Your task to perform on an android device: Search for sony triple a on costco.com, select the first entry, and add it to the cart. Image 0: 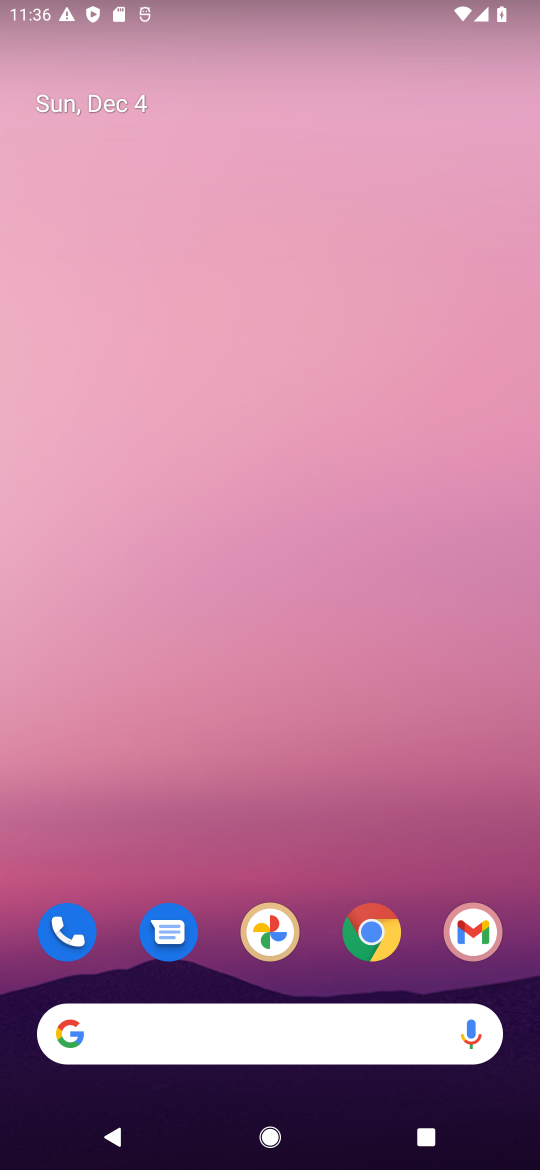
Step 0: click (372, 931)
Your task to perform on an android device: Search for sony triple a on costco.com, select the first entry, and add it to the cart. Image 1: 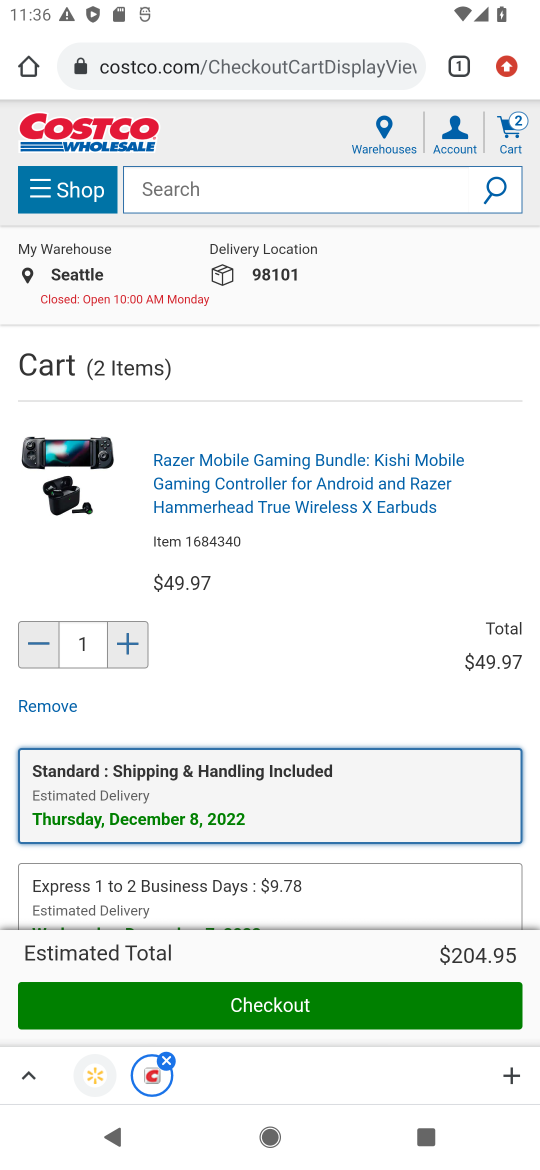
Step 1: click (330, 186)
Your task to perform on an android device: Search for sony triple a on costco.com, select the first entry, and add it to the cart. Image 2: 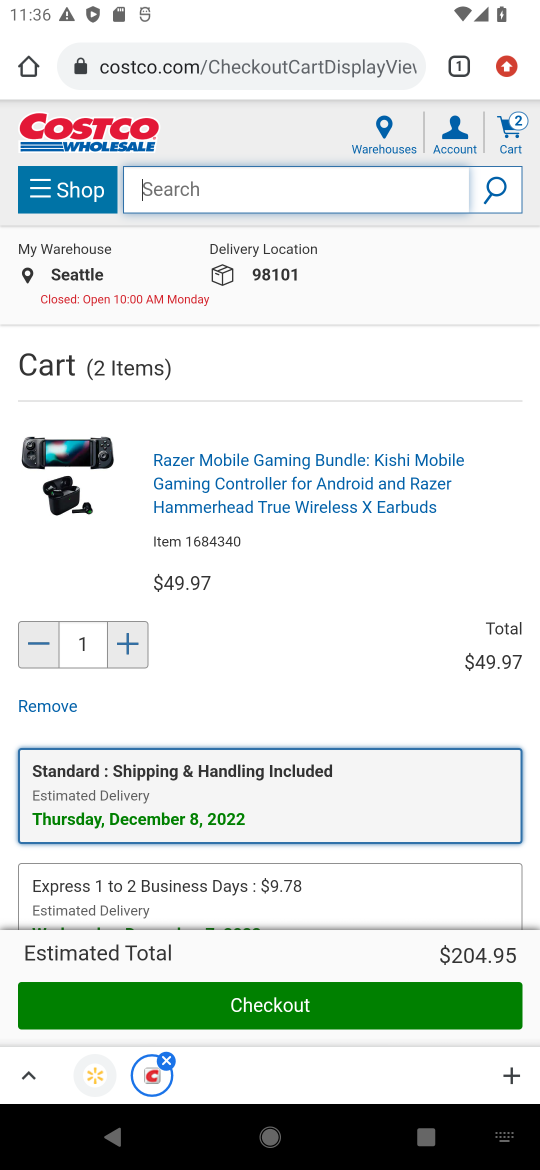
Step 2: type "sony triple a"
Your task to perform on an android device: Search for sony triple a on costco.com, select the first entry, and add it to the cart. Image 3: 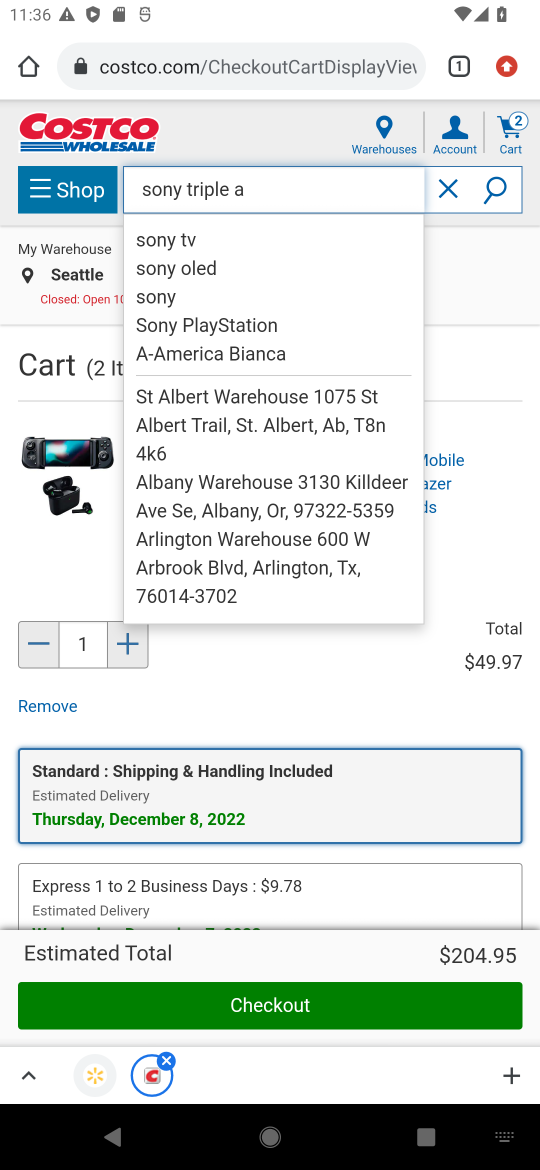
Step 3: click (188, 245)
Your task to perform on an android device: Search for sony triple a on costco.com, select the first entry, and add it to the cart. Image 4: 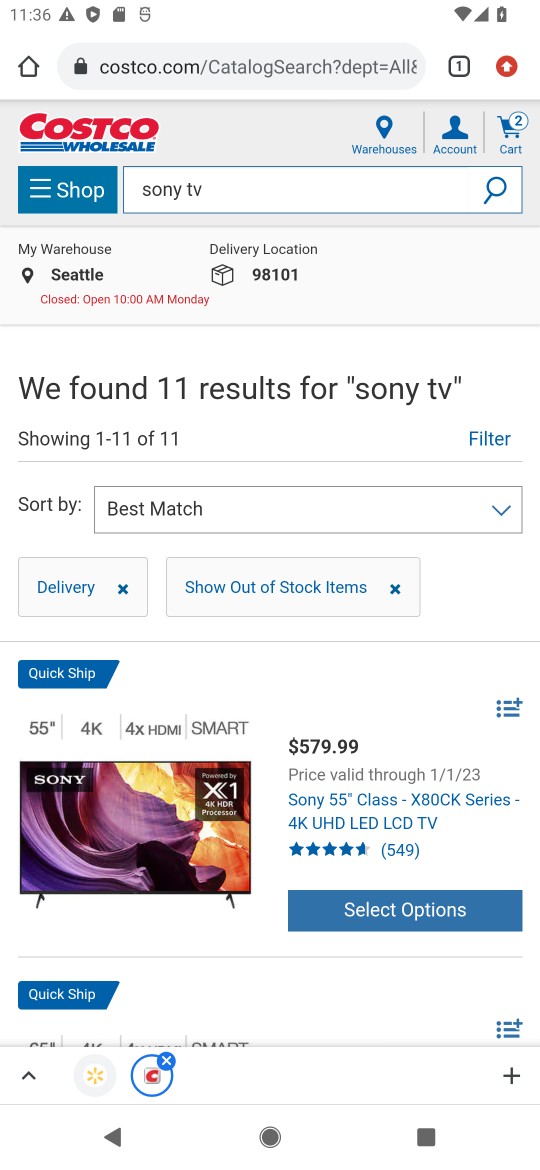
Step 4: click (110, 752)
Your task to perform on an android device: Search for sony triple a on costco.com, select the first entry, and add it to the cart. Image 5: 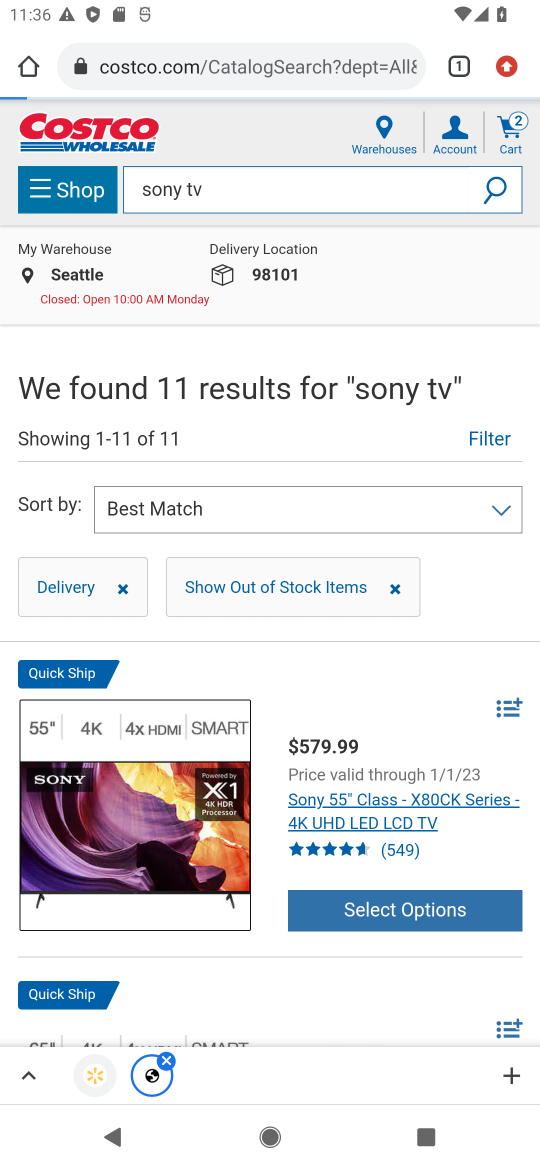
Step 5: click (124, 803)
Your task to perform on an android device: Search for sony triple a on costco.com, select the first entry, and add it to the cart. Image 6: 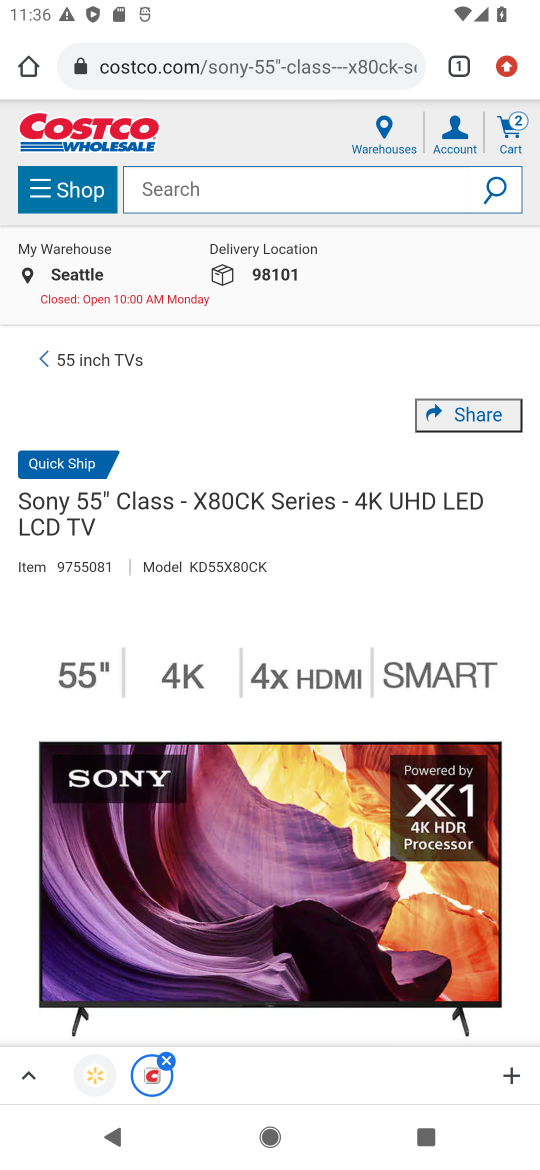
Step 6: drag from (309, 974) to (369, 248)
Your task to perform on an android device: Search for sony triple a on costco.com, select the first entry, and add it to the cart. Image 7: 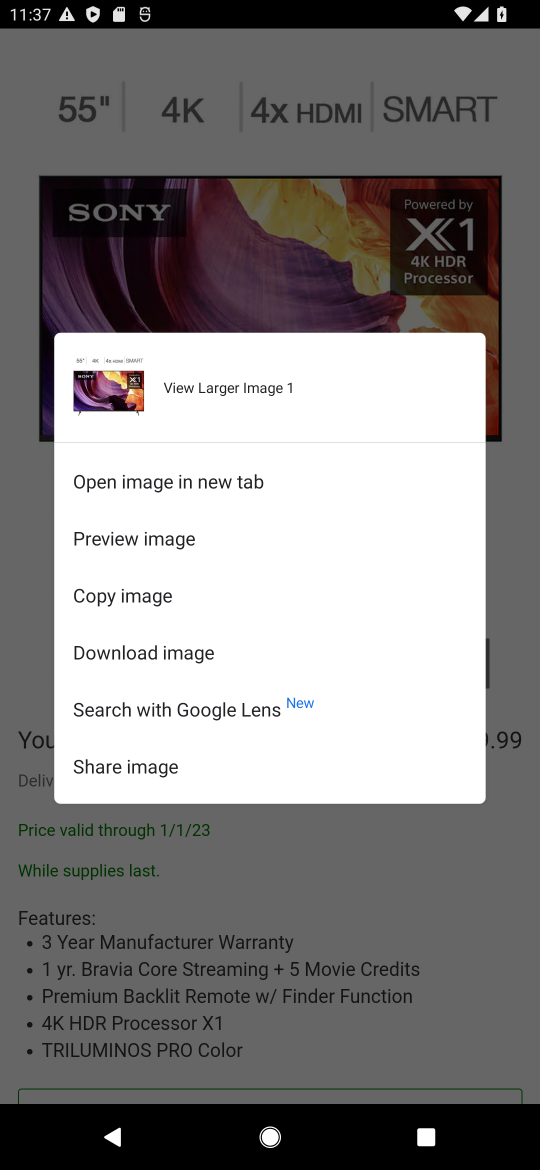
Step 7: click (443, 949)
Your task to perform on an android device: Search for sony triple a on costco.com, select the first entry, and add it to the cart. Image 8: 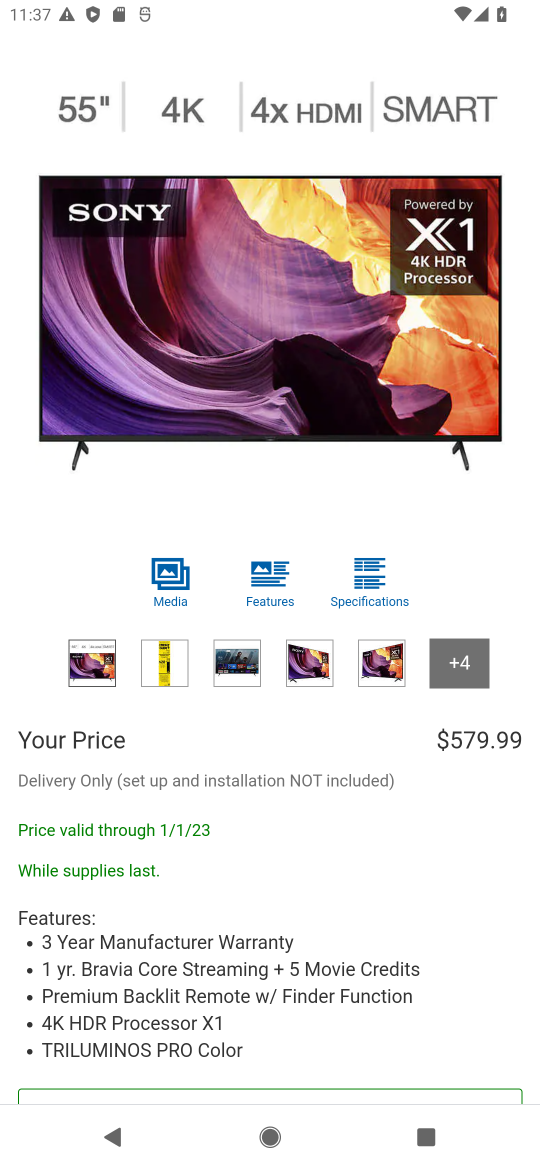
Step 8: drag from (443, 949) to (361, 261)
Your task to perform on an android device: Search for sony triple a on costco.com, select the first entry, and add it to the cart. Image 9: 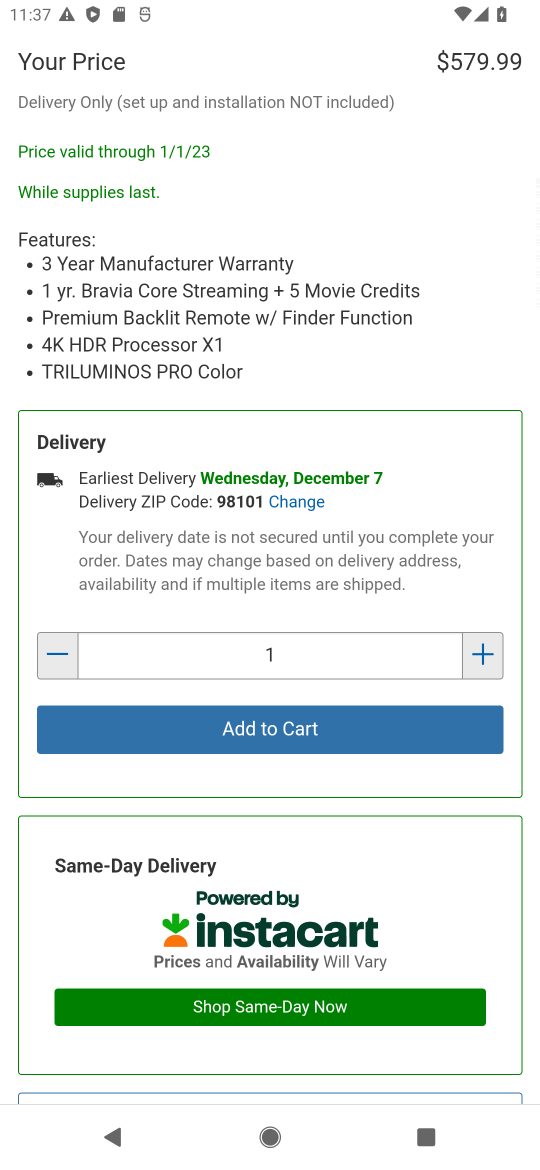
Step 9: click (299, 728)
Your task to perform on an android device: Search for sony triple a on costco.com, select the first entry, and add it to the cart. Image 10: 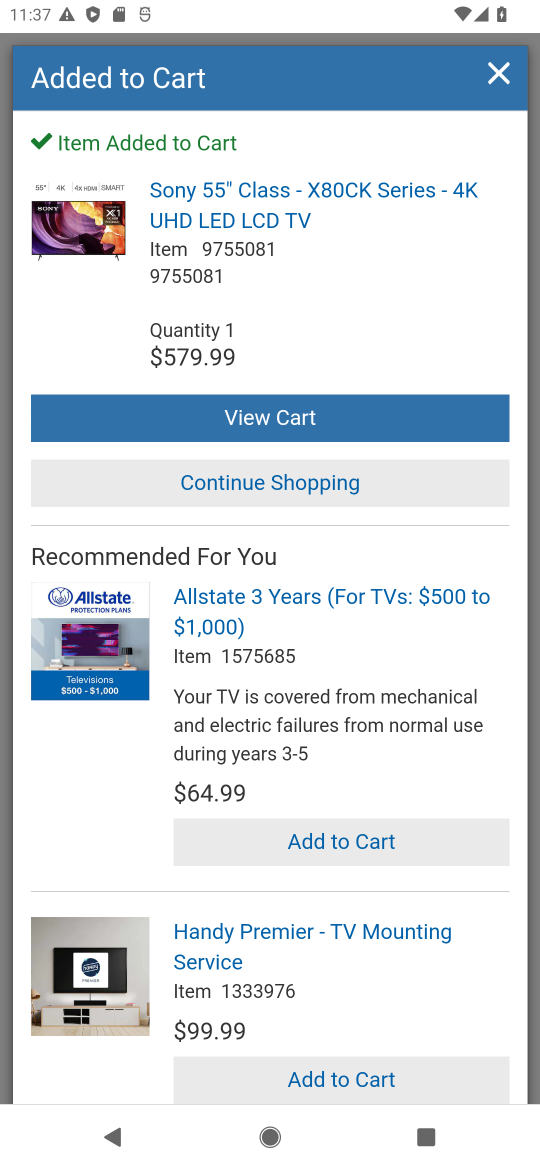
Step 10: click (334, 422)
Your task to perform on an android device: Search for sony triple a on costco.com, select the first entry, and add it to the cart. Image 11: 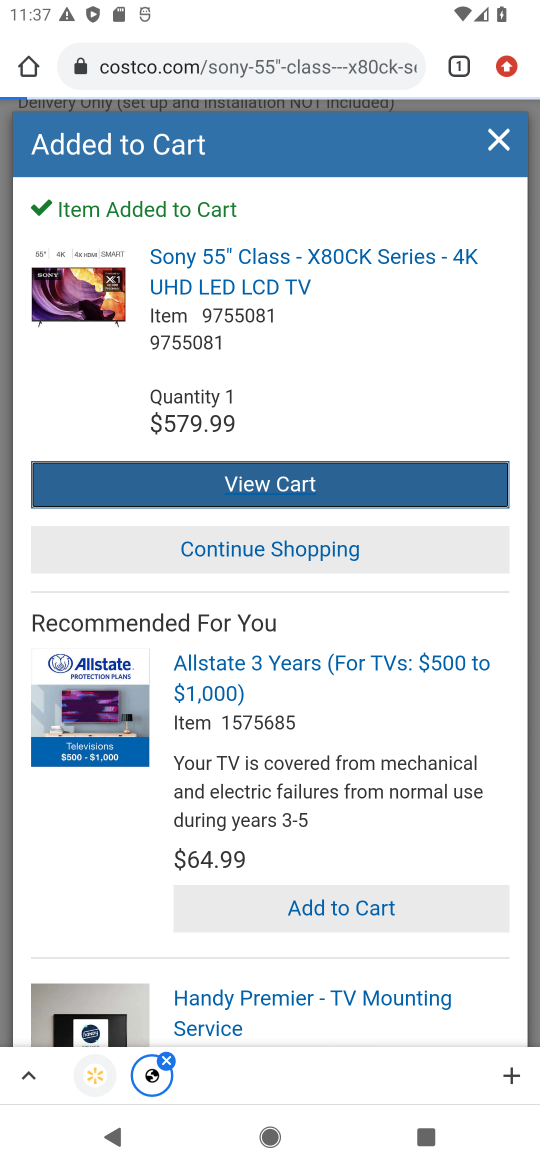
Step 11: task complete